Your task to perform on an android device: stop showing notifications on the lock screen Image 0: 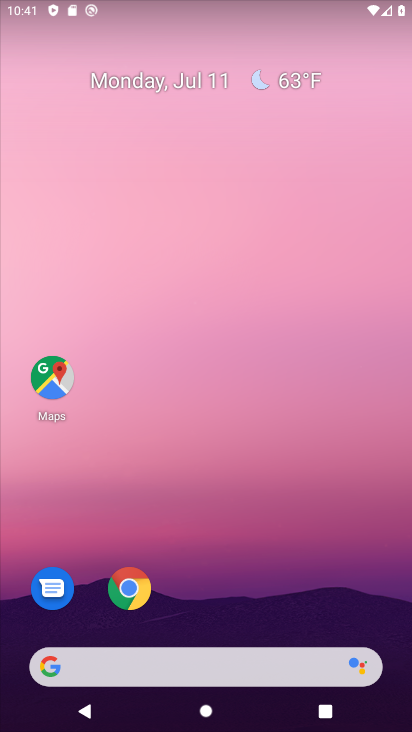
Step 0: drag from (247, 729) to (235, 86)
Your task to perform on an android device: stop showing notifications on the lock screen Image 1: 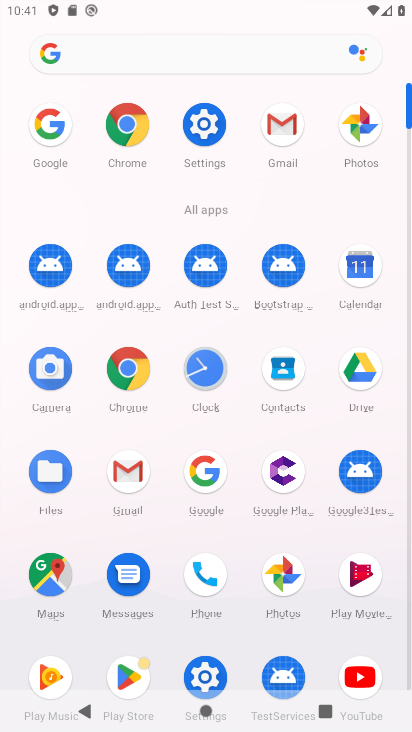
Step 1: click (208, 125)
Your task to perform on an android device: stop showing notifications on the lock screen Image 2: 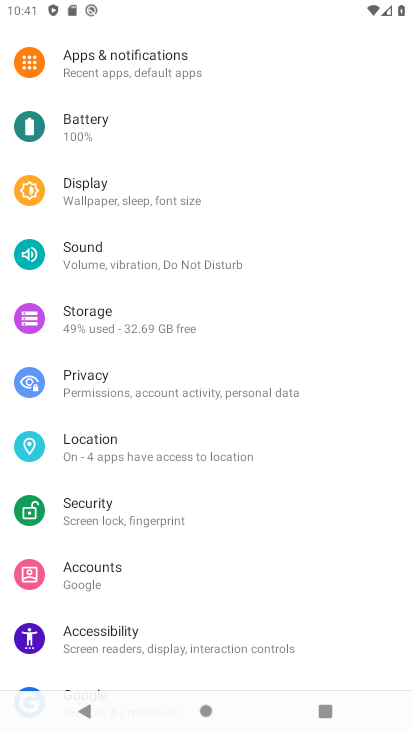
Step 2: click (131, 58)
Your task to perform on an android device: stop showing notifications on the lock screen Image 3: 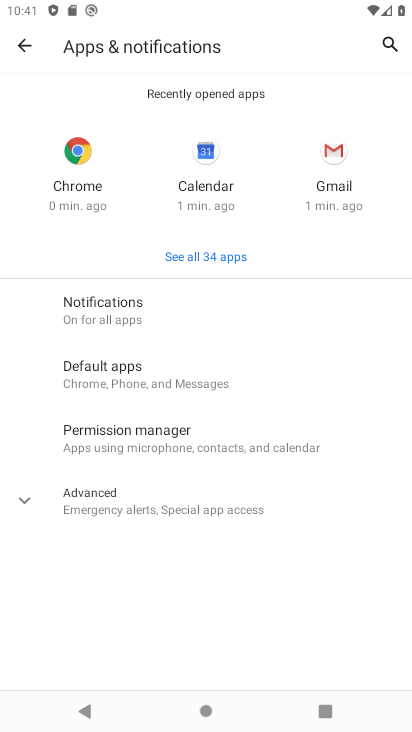
Step 3: click (117, 303)
Your task to perform on an android device: stop showing notifications on the lock screen Image 4: 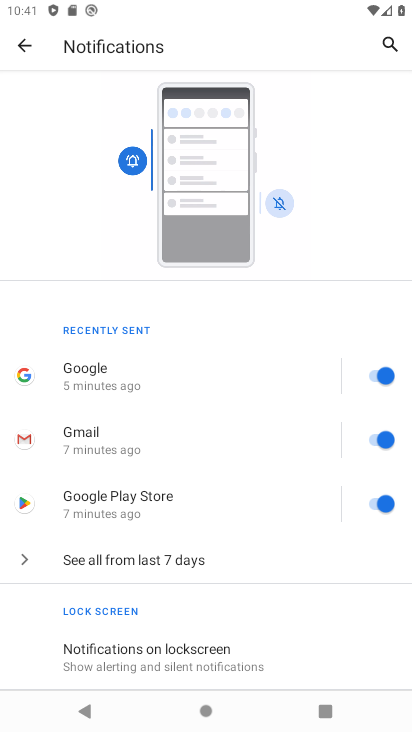
Step 4: click (154, 657)
Your task to perform on an android device: stop showing notifications on the lock screen Image 5: 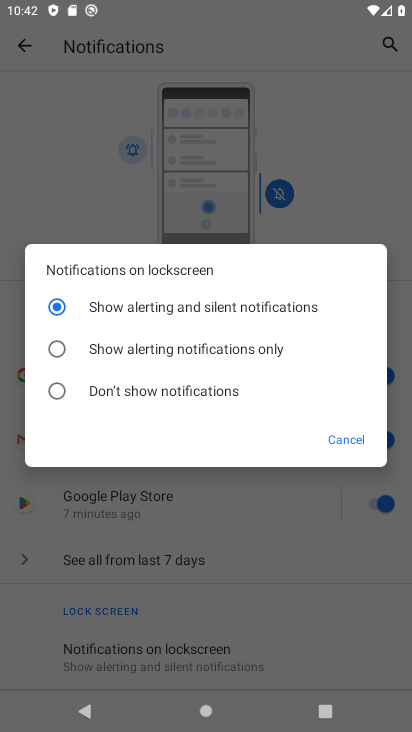
Step 5: click (57, 388)
Your task to perform on an android device: stop showing notifications on the lock screen Image 6: 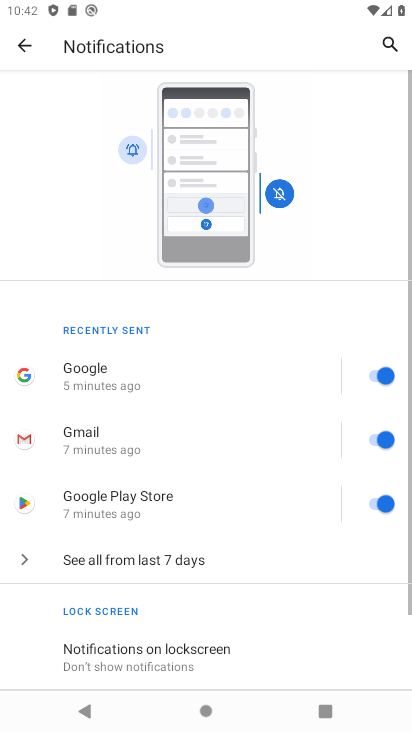
Step 6: task complete